Your task to perform on an android device: Open notification settings Image 0: 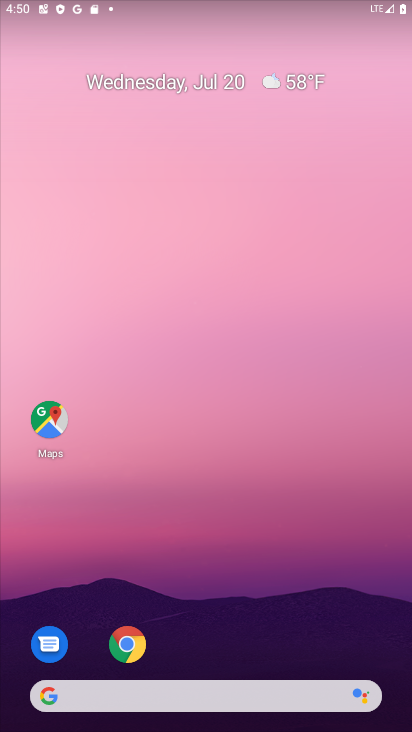
Step 0: press home button
Your task to perform on an android device: Open notification settings Image 1: 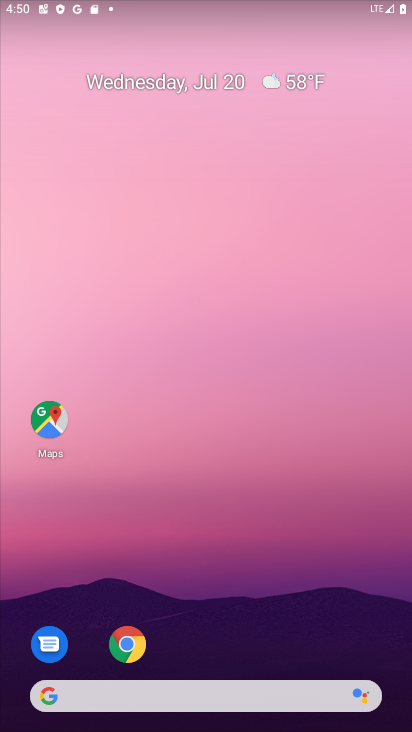
Step 1: drag from (237, 495) to (277, 0)
Your task to perform on an android device: Open notification settings Image 2: 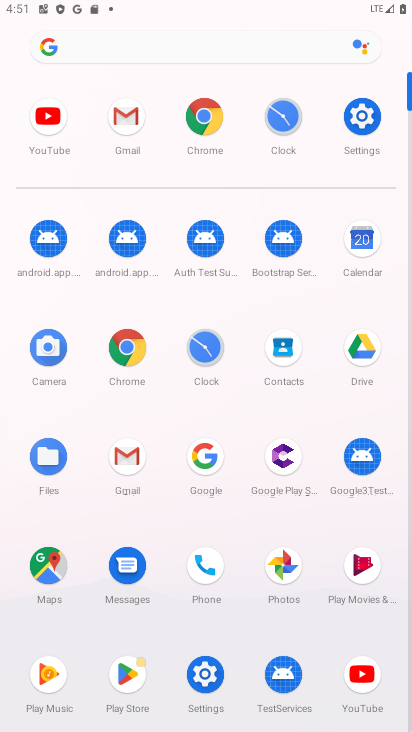
Step 2: click (361, 112)
Your task to perform on an android device: Open notification settings Image 3: 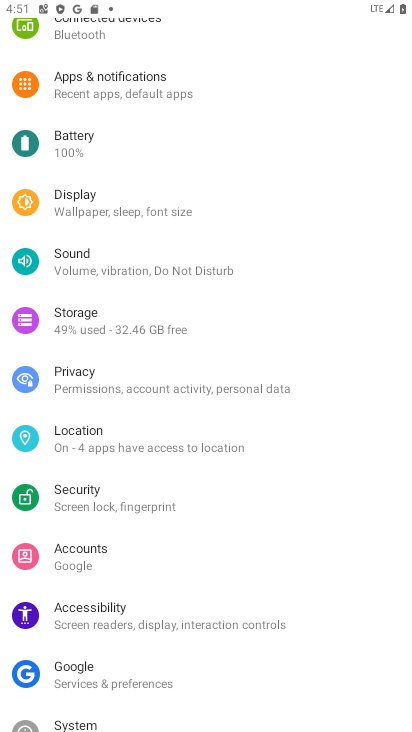
Step 3: click (114, 82)
Your task to perform on an android device: Open notification settings Image 4: 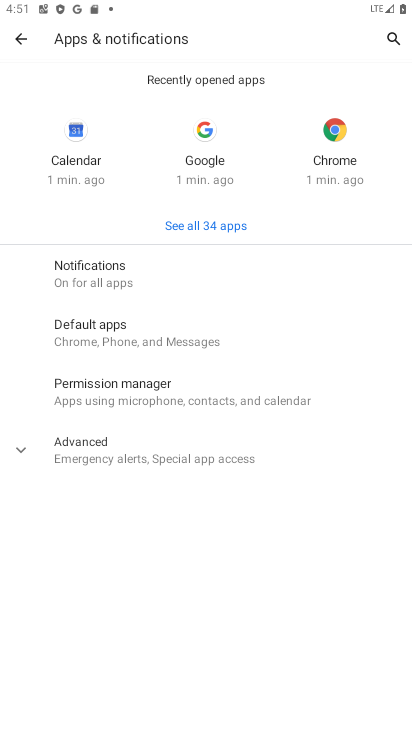
Step 4: click (95, 273)
Your task to perform on an android device: Open notification settings Image 5: 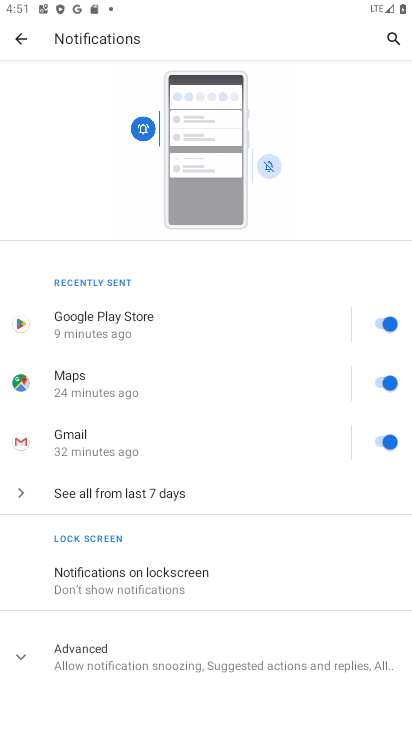
Step 5: task complete